Your task to perform on an android device: toggle priority inbox in the gmail app Image 0: 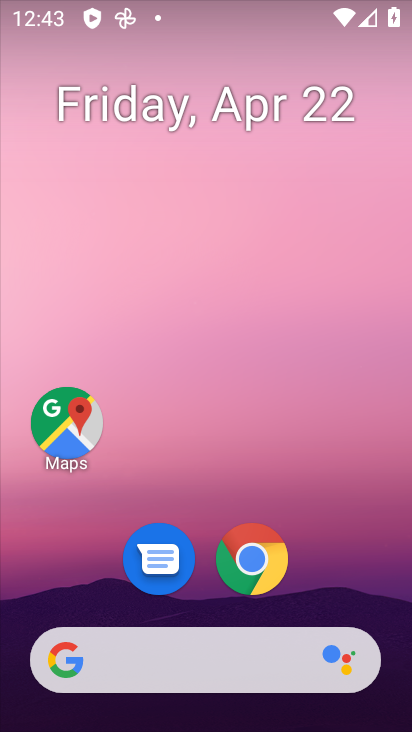
Step 0: drag from (370, 576) to (361, 209)
Your task to perform on an android device: toggle priority inbox in the gmail app Image 1: 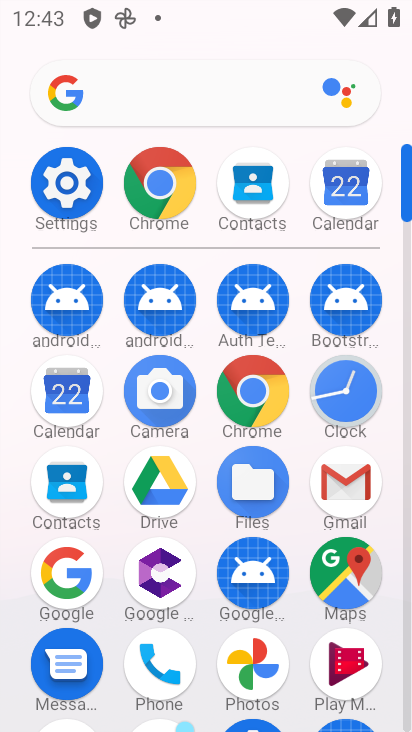
Step 1: click (356, 474)
Your task to perform on an android device: toggle priority inbox in the gmail app Image 2: 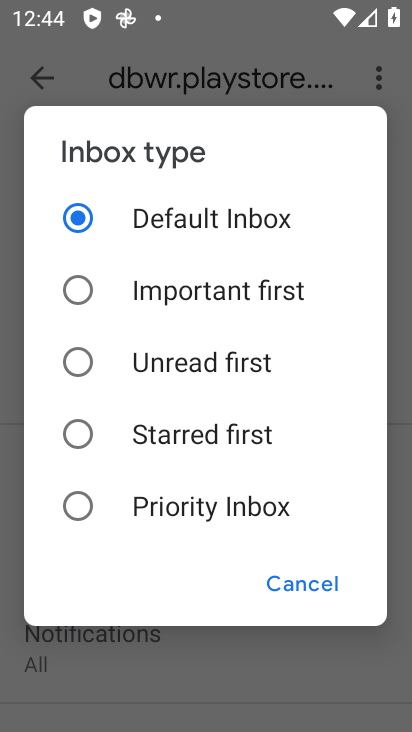
Step 2: click (80, 503)
Your task to perform on an android device: toggle priority inbox in the gmail app Image 3: 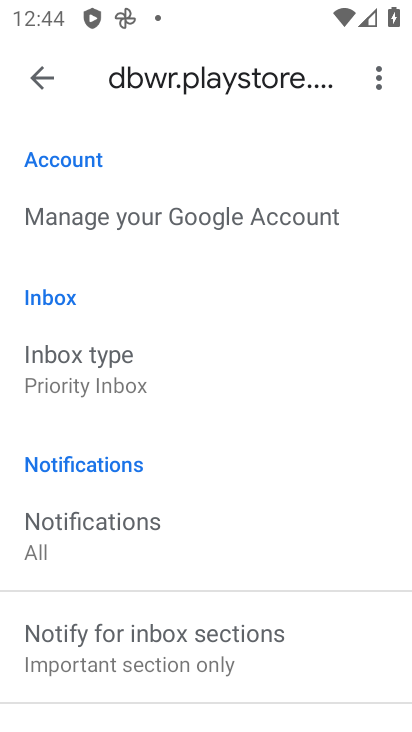
Step 3: task complete